Your task to perform on an android device: Open Chrome and go to settings Image 0: 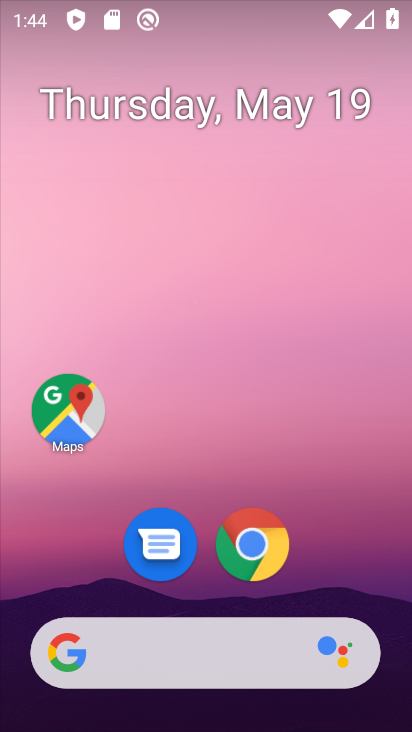
Step 0: press home button
Your task to perform on an android device: Open Chrome and go to settings Image 1: 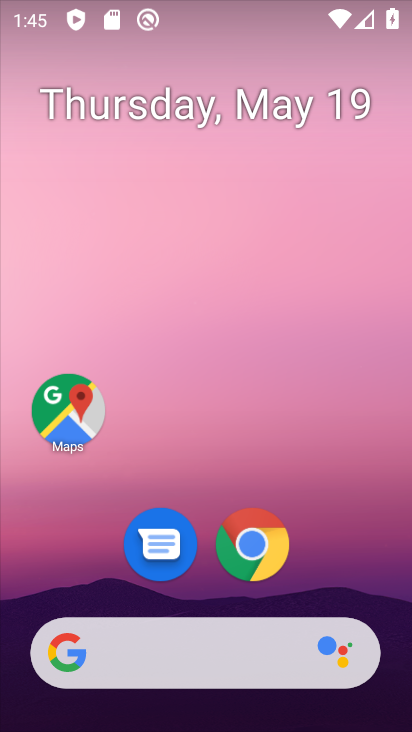
Step 1: click (252, 534)
Your task to perform on an android device: Open Chrome and go to settings Image 2: 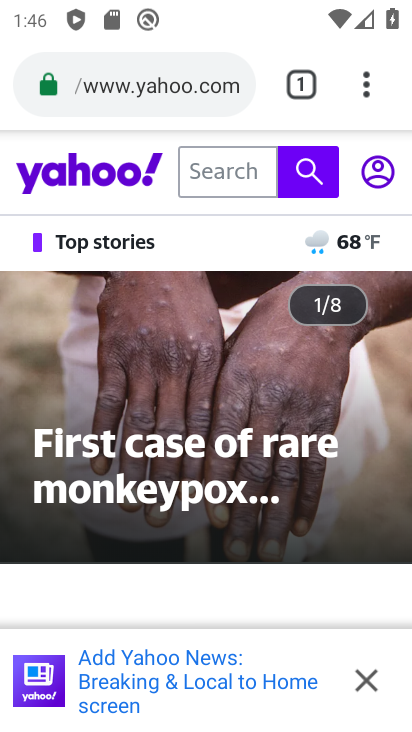
Step 2: click (361, 89)
Your task to perform on an android device: Open Chrome and go to settings Image 3: 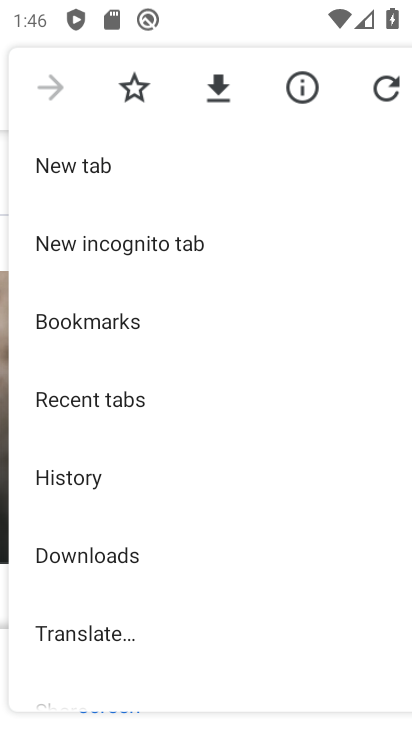
Step 3: drag from (190, 586) to (198, 477)
Your task to perform on an android device: Open Chrome and go to settings Image 4: 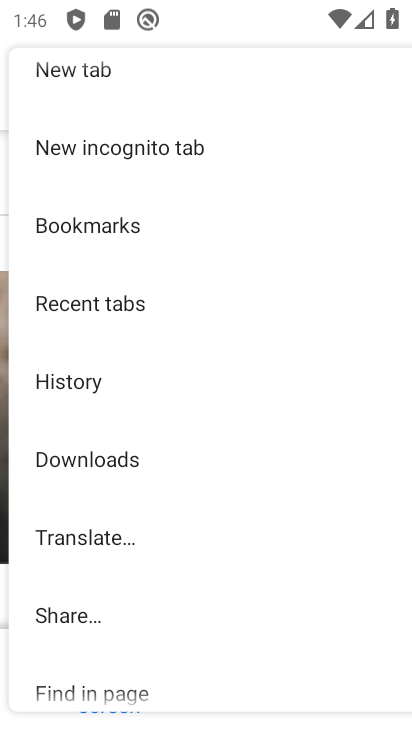
Step 4: drag from (164, 623) to (181, 482)
Your task to perform on an android device: Open Chrome and go to settings Image 5: 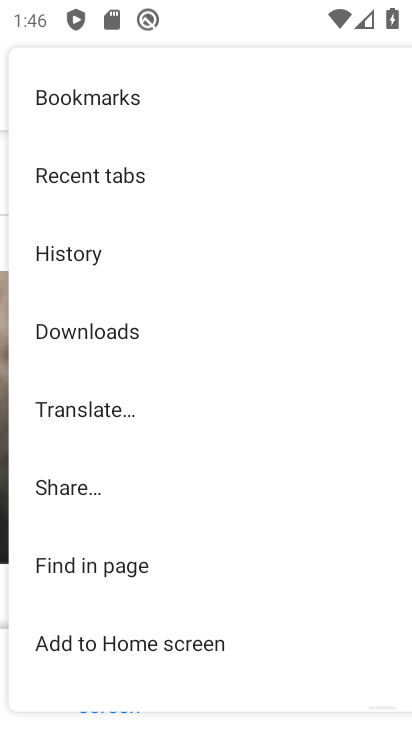
Step 5: drag from (211, 581) to (273, 229)
Your task to perform on an android device: Open Chrome and go to settings Image 6: 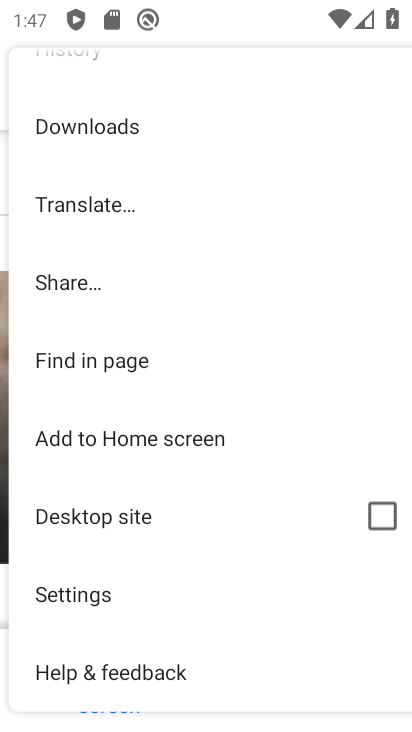
Step 6: click (77, 595)
Your task to perform on an android device: Open Chrome and go to settings Image 7: 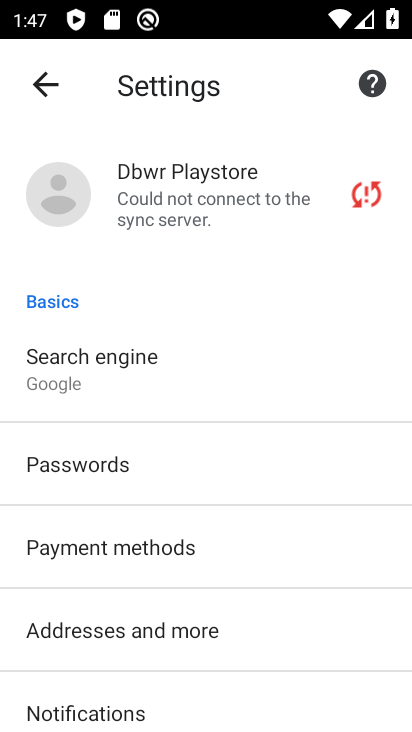
Step 7: task complete